Your task to perform on an android device: Go to internet settings Image 0: 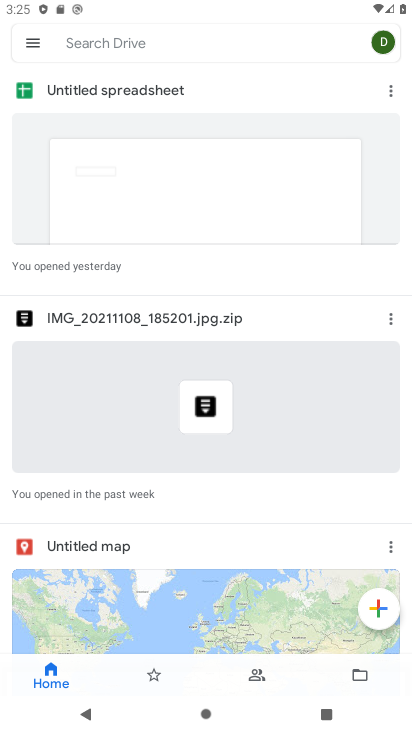
Step 0: drag from (204, 1) to (271, 704)
Your task to perform on an android device: Go to internet settings Image 1: 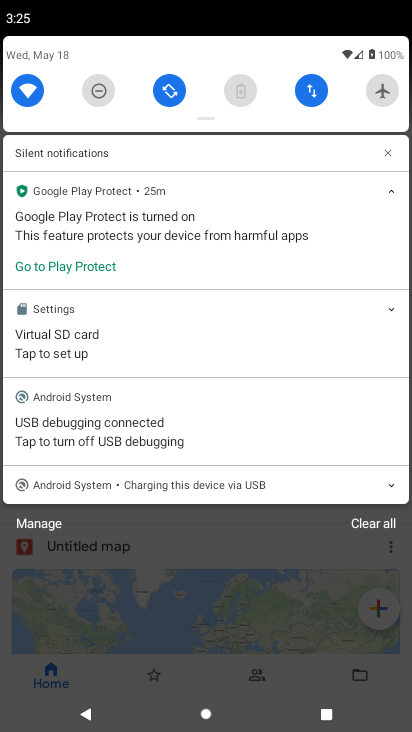
Step 1: click (307, 97)
Your task to perform on an android device: Go to internet settings Image 2: 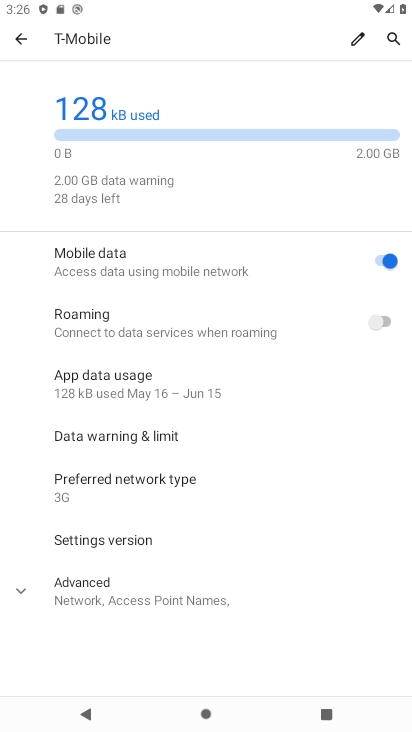
Step 2: task complete